Your task to perform on an android device: open app "VLC for Android" Image 0: 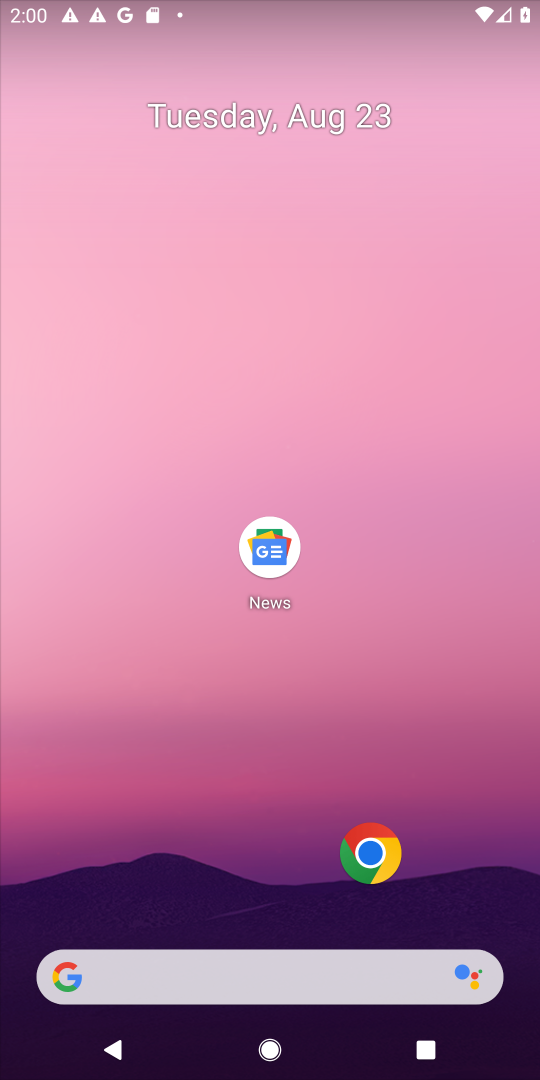
Step 0: drag from (523, 952) to (449, 147)
Your task to perform on an android device: open app "VLC for Android" Image 1: 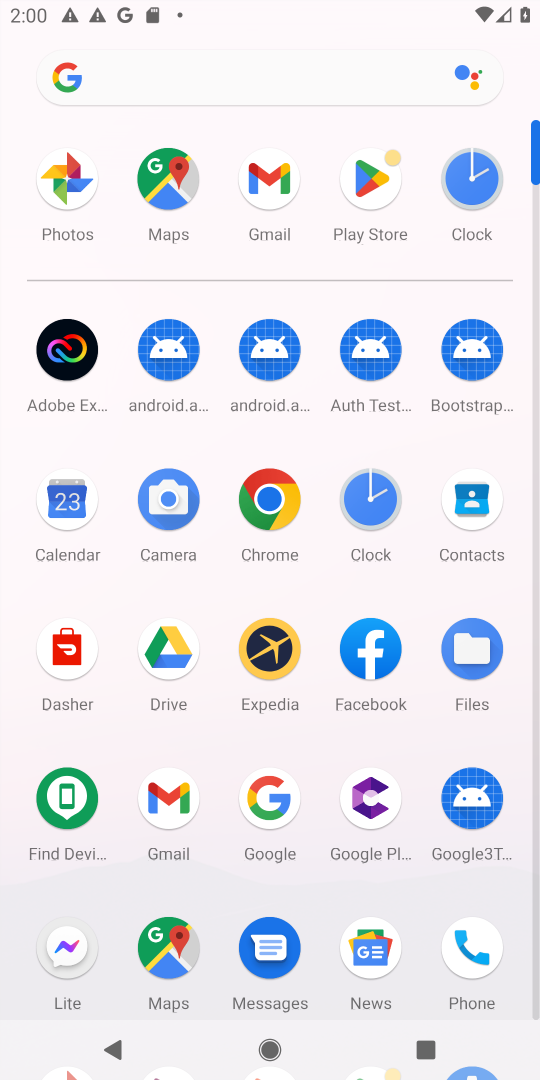
Step 1: click (535, 992)
Your task to perform on an android device: open app "VLC for Android" Image 2: 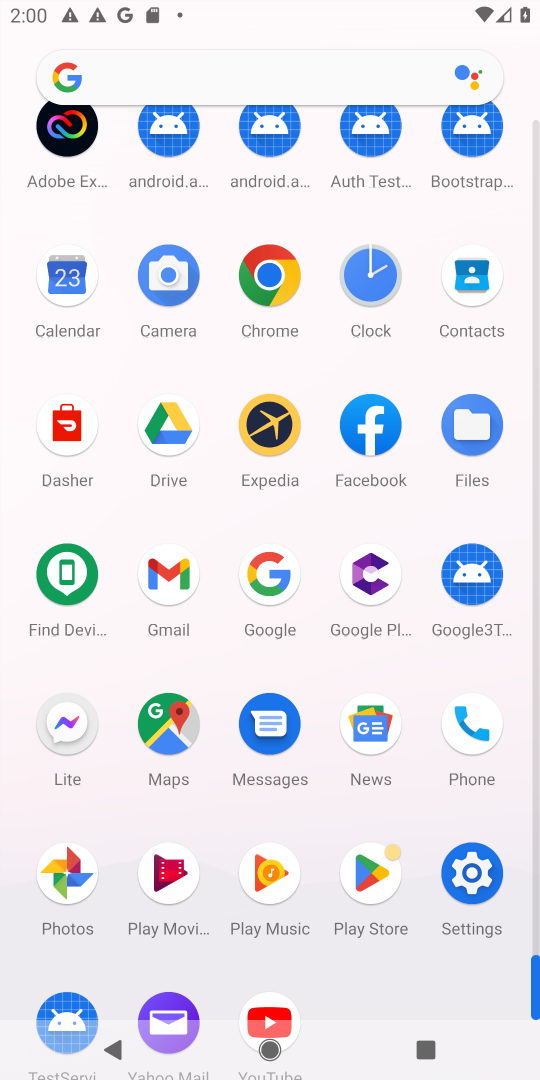
Step 2: click (374, 872)
Your task to perform on an android device: open app "VLC for Android" Image 3: 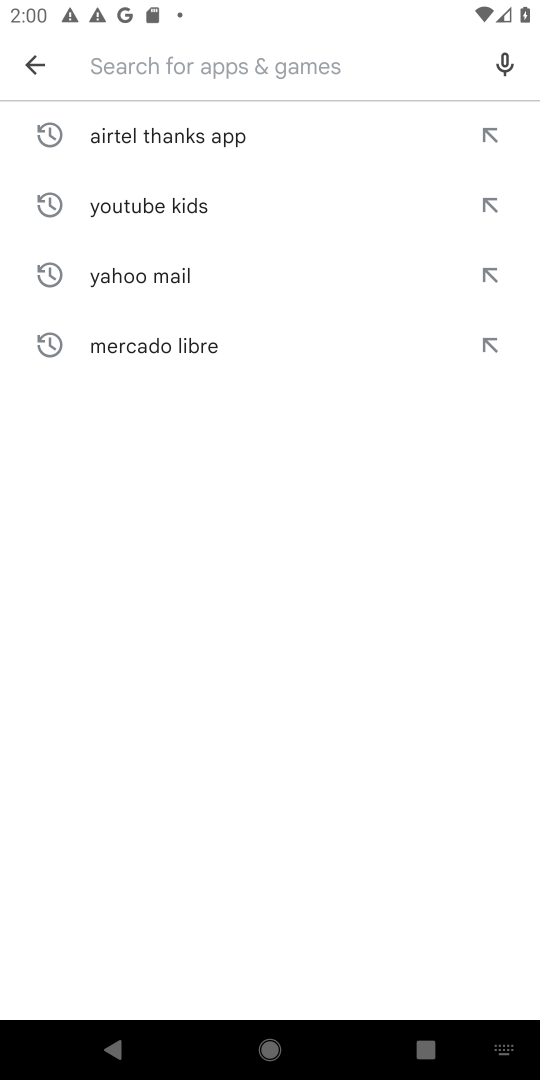
Step 3: type "VLC for Android"
Your task to perform on an android device: open app "VLC for Android" Image 4: 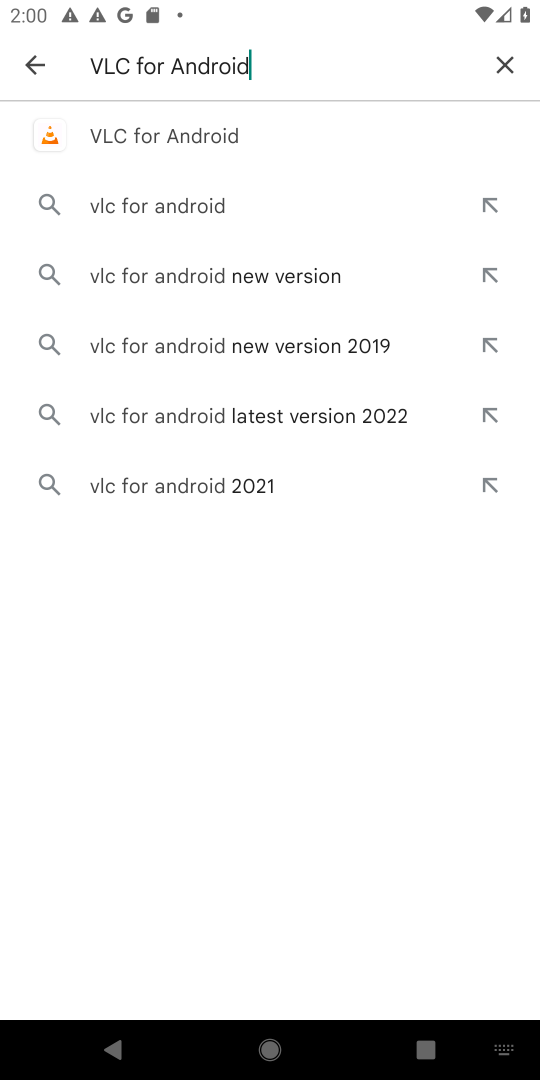
Step 4: click (137, 131)
Your task to perform on an android device: open app "VLC for Android" Image 5: 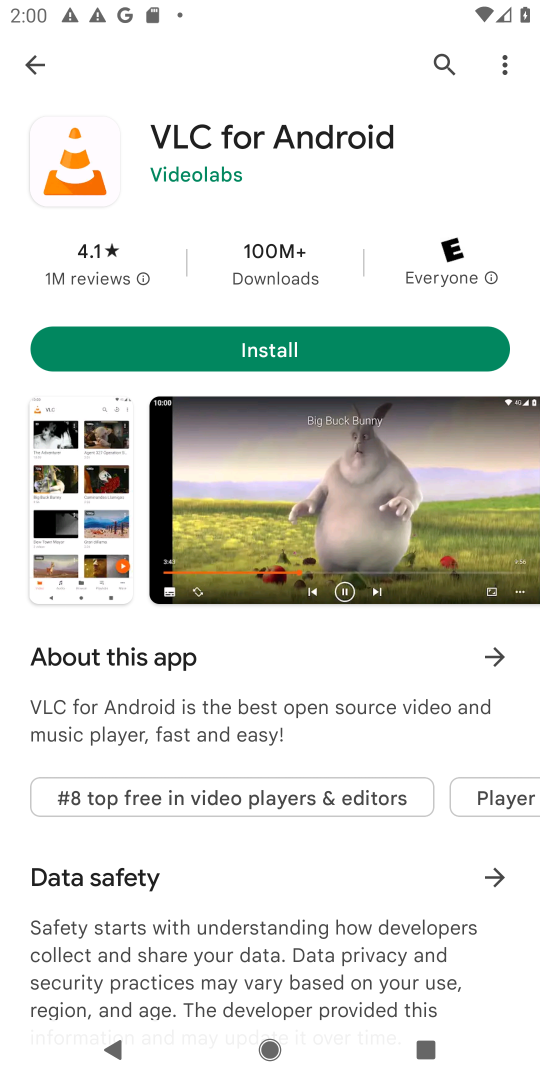
Step 5: task complete